Your task to perform on an android device: Open Google Maps Image 0: 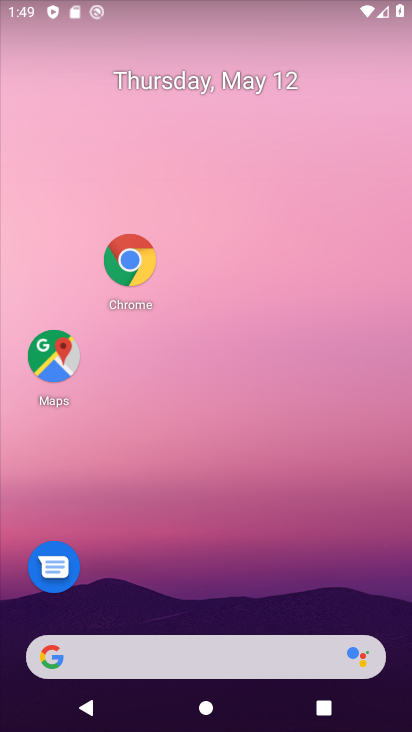
Step 0: click (60, 357)
Your task to perform on an android device: Open Google Maps Image 1: 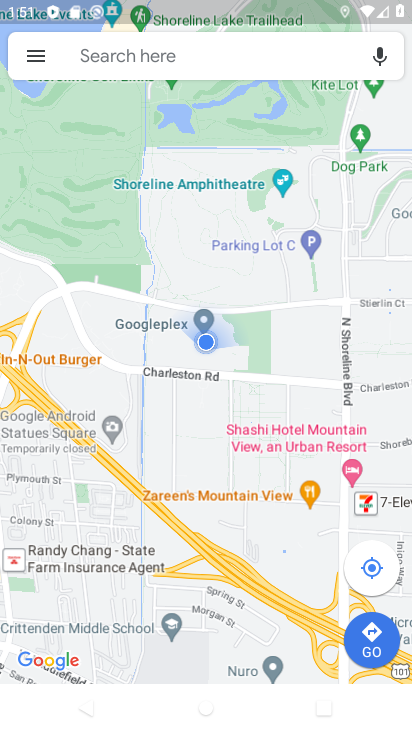
Step 1: task complete